Your task to perform on an android device: Open the calculator Image 0: 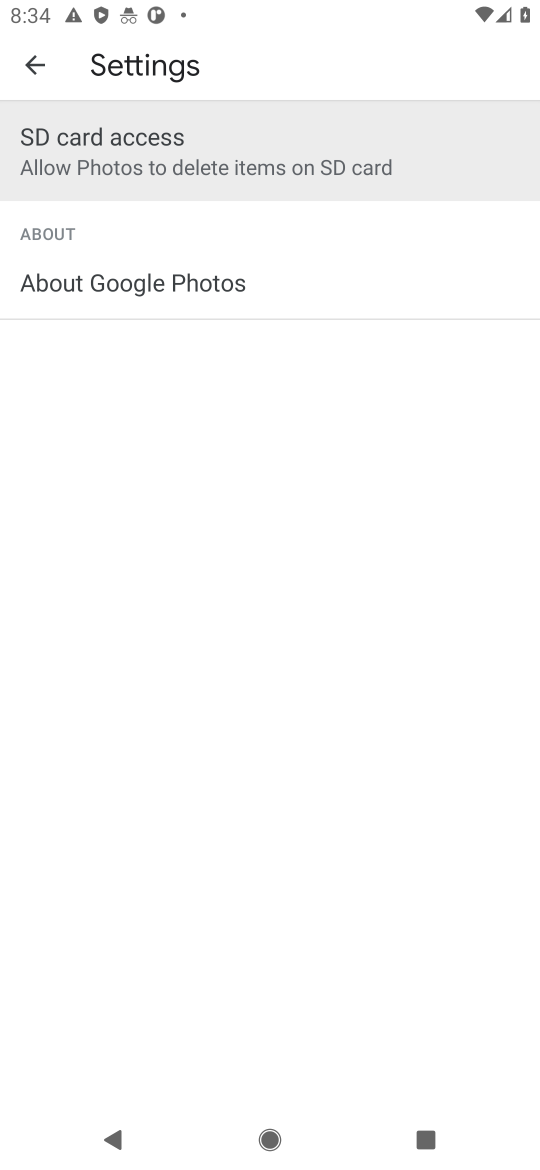
Step 0: press home button
Your task to perform on an android device: Open the calculator Image 1: 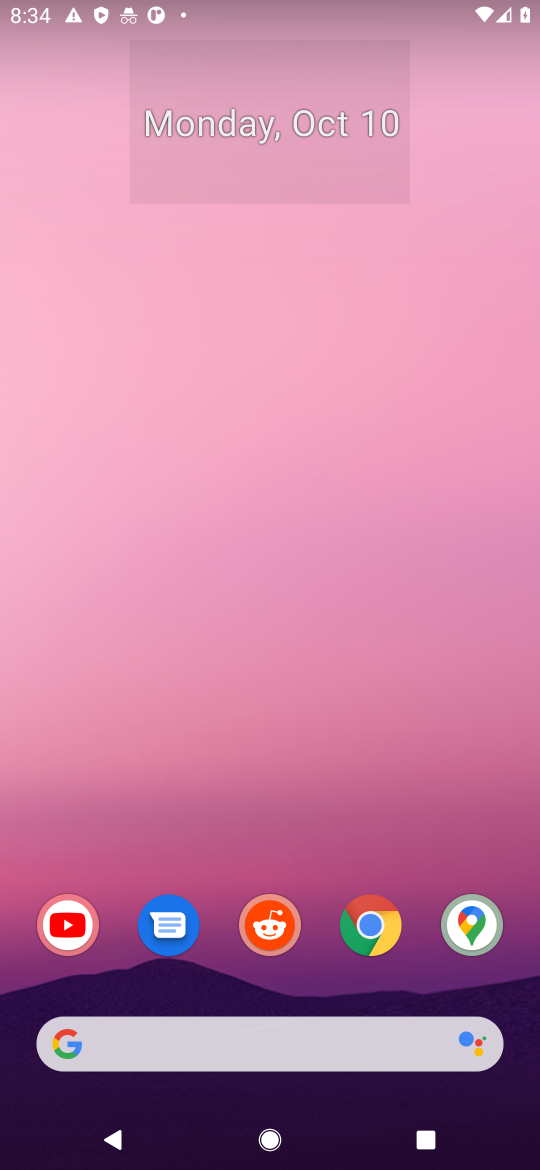
Step 1: drag from (308, 817) to (270, 152)
Your task to perform on an android device: Open the calculator Image 2: 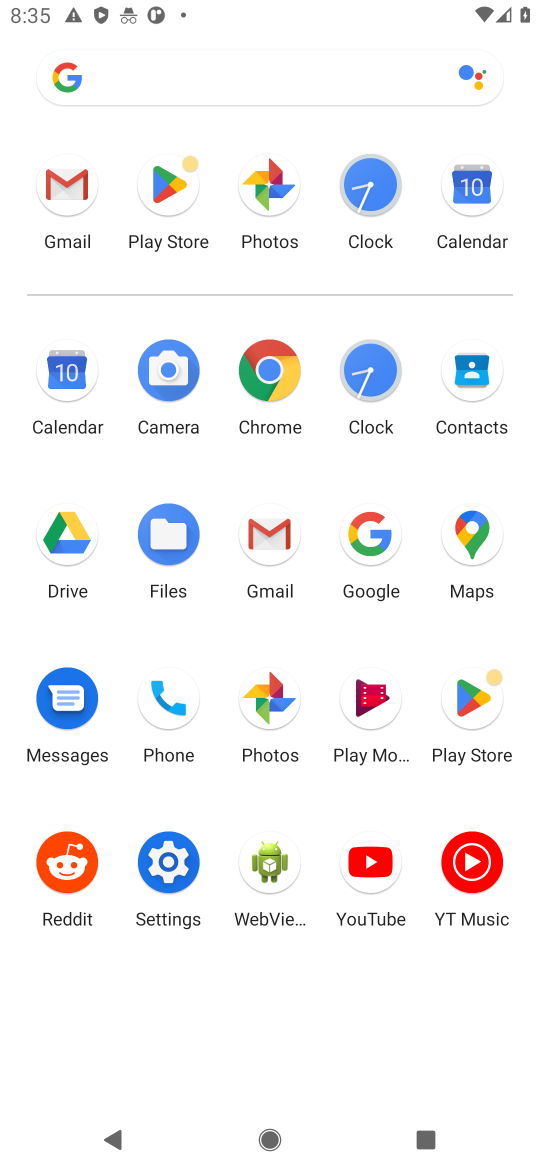
Step 2: drag from (275, 799) to (247, 458)
Your task to perform on an android device: Open the calculator Image 3: 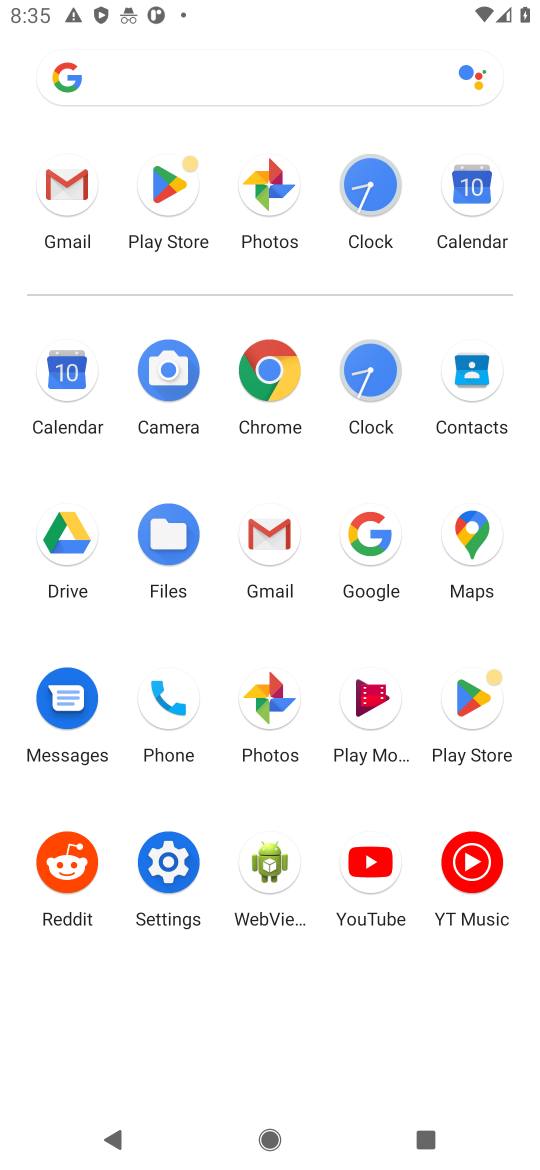
Step 3: click (273, 375)
Your task to perform on an android device: Open the calculator Image 4: 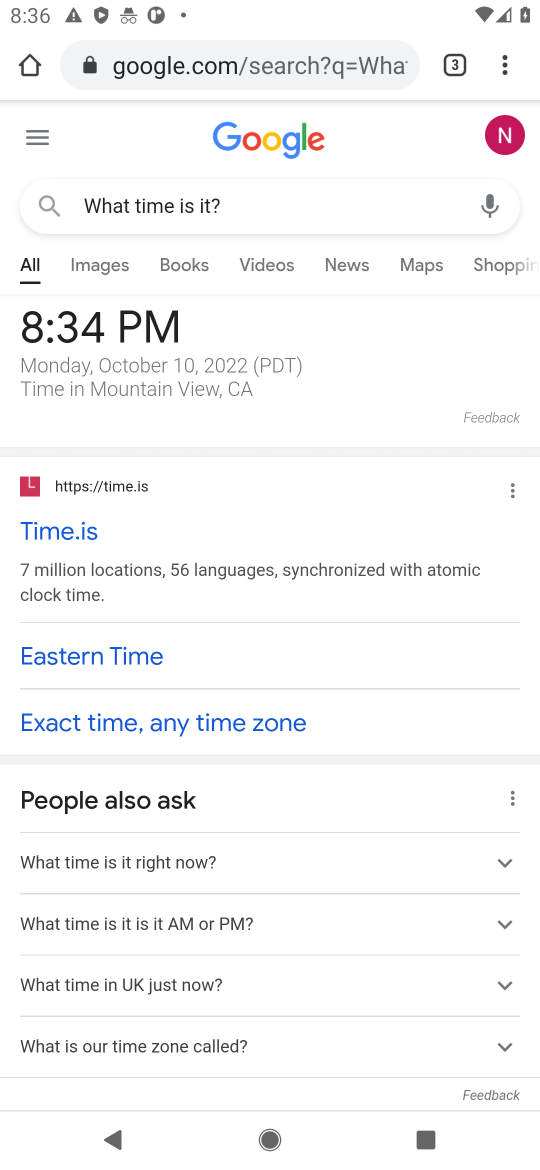
Step 4: click (284, 210)
Your task to perform on an android device: Open the calculator Image 5: 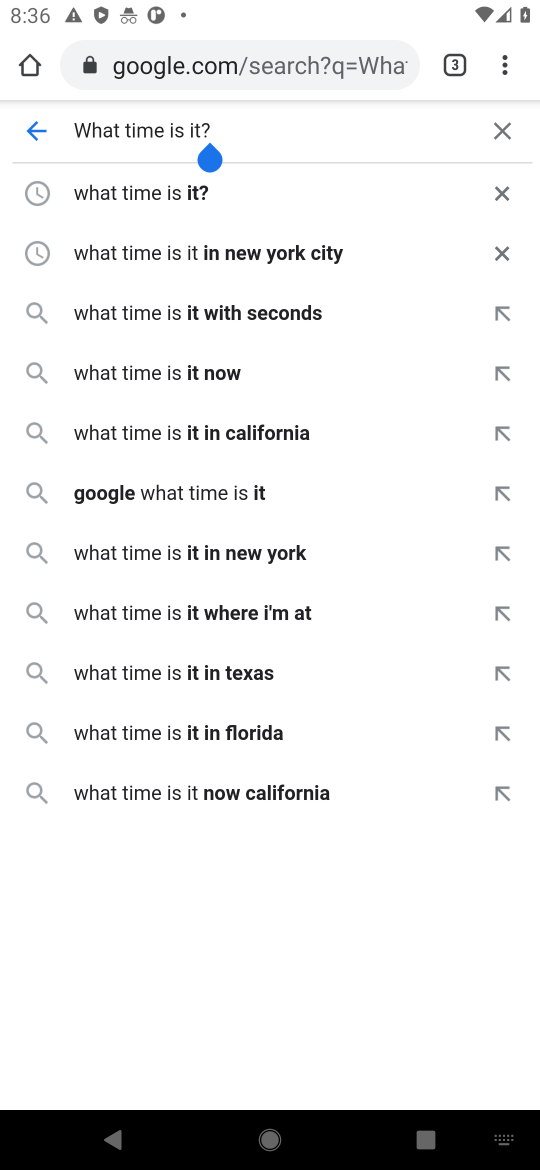
Step 5: click (510, 127)
Your task to perform on an android device: Open the calculator Image 6: 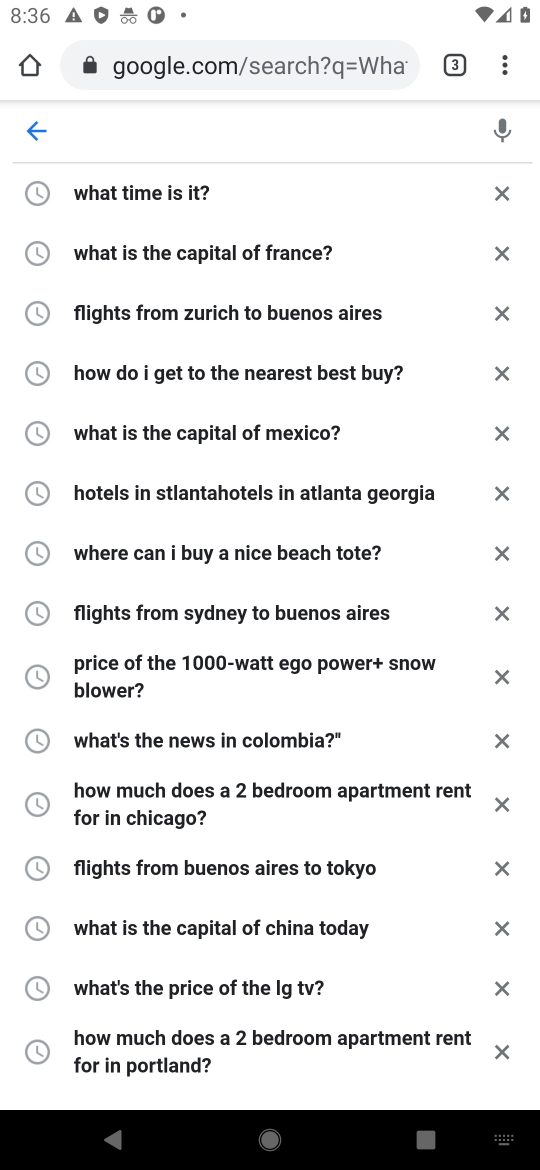
Step 6: type "Open the calcutator"
Your task to perform on an android device: Open the calculator Image 7: 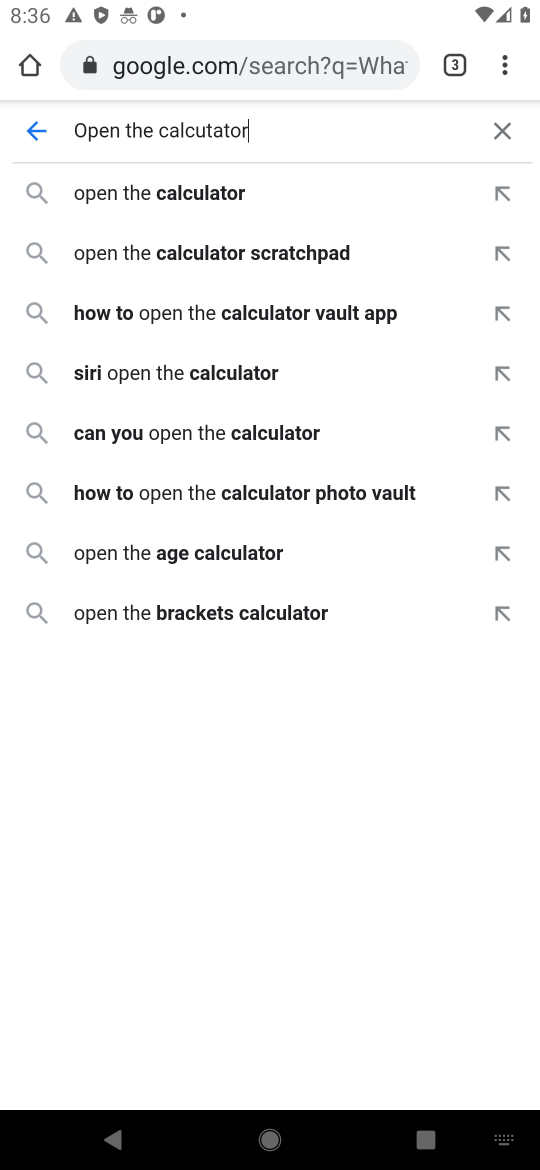
Step 7: press enter
Your task to perform on an android device: Open the calculator Image 8: 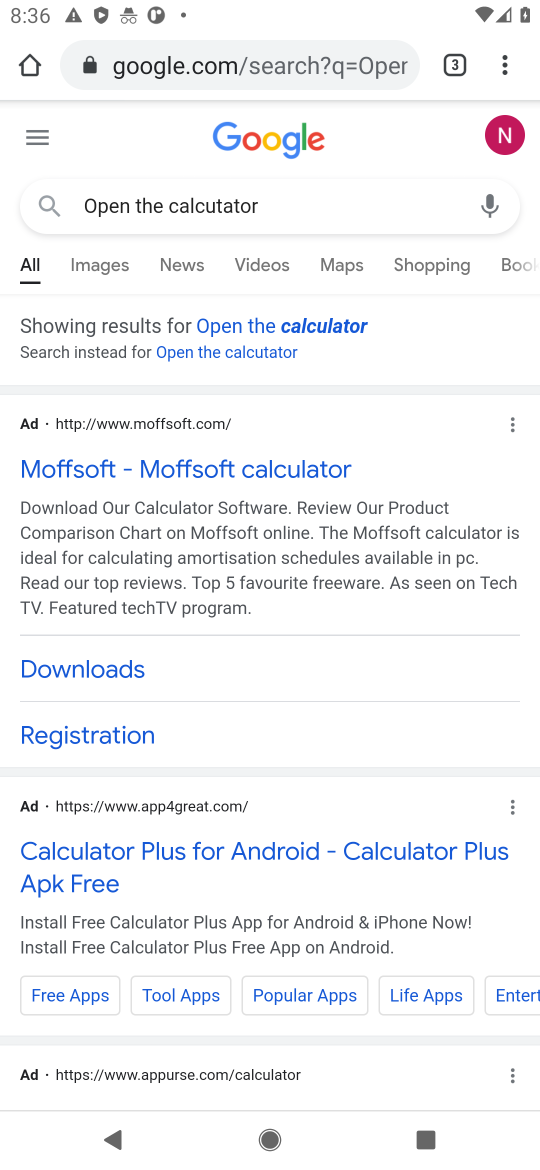
Step 8: click (320, 321)
Your task to perform on an android device: Open the calculator Image 9: 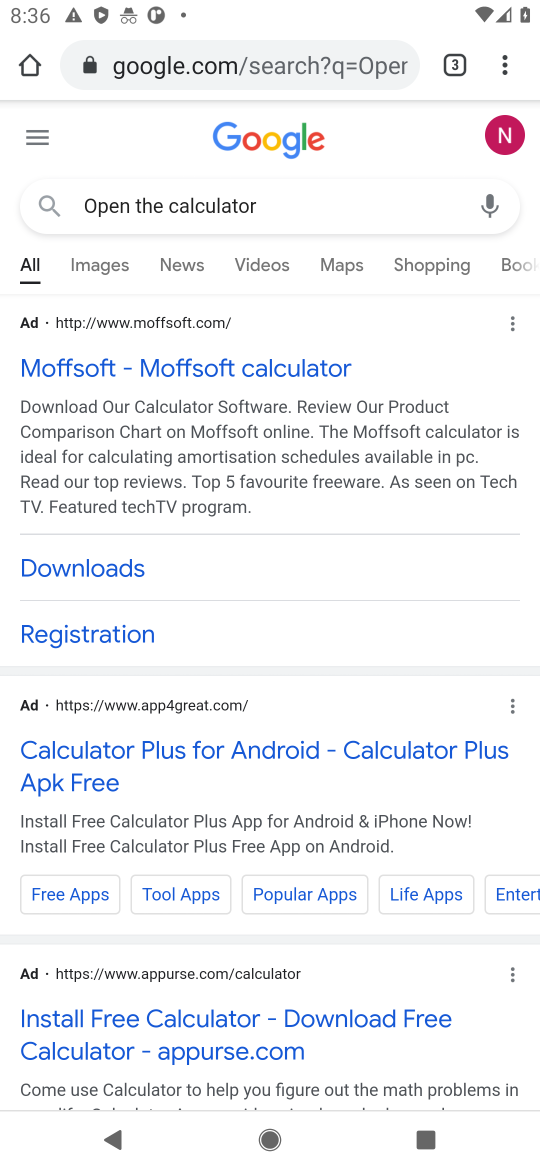
Step 9: task complete